Your task to perform on an android device: change the clock display to analog Image 0: 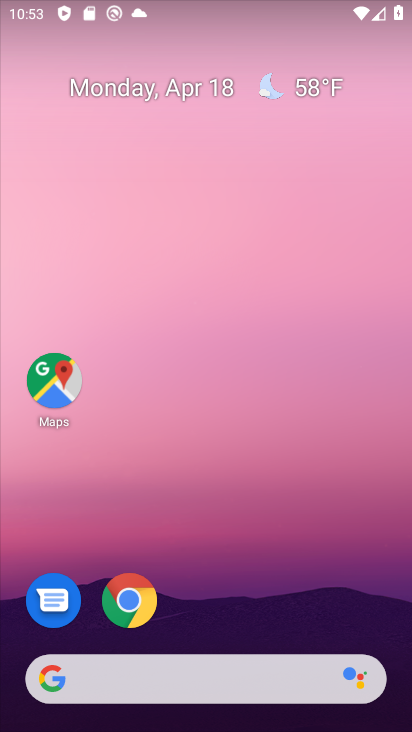
Step 0: drag from (247, 575) to (326, 0)
Your task to perform on an android device: change the clock display to analog Image 1: 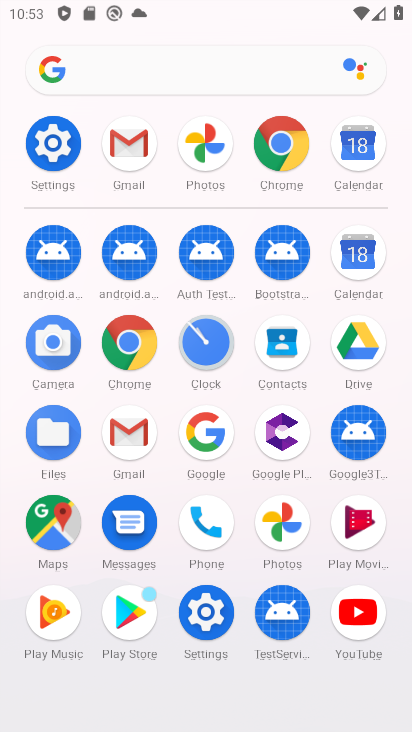
Step 1: click (205, 345)
Your task to perform on an android device: change the clock display to analog Image 2: 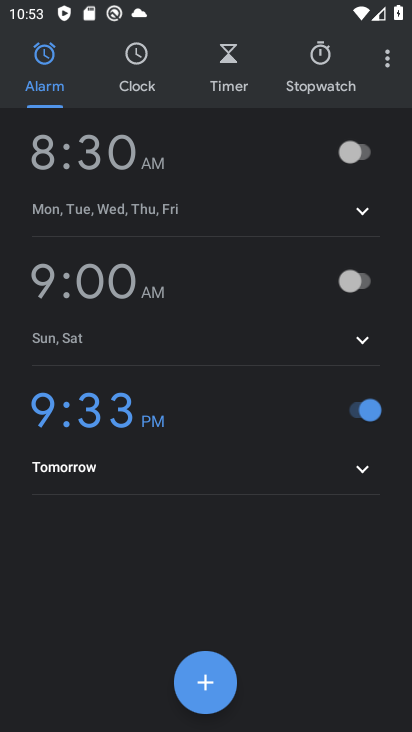
Step 2: click (384, 58)
Your task to perform on an android device: change the clock display to analog Image 3: 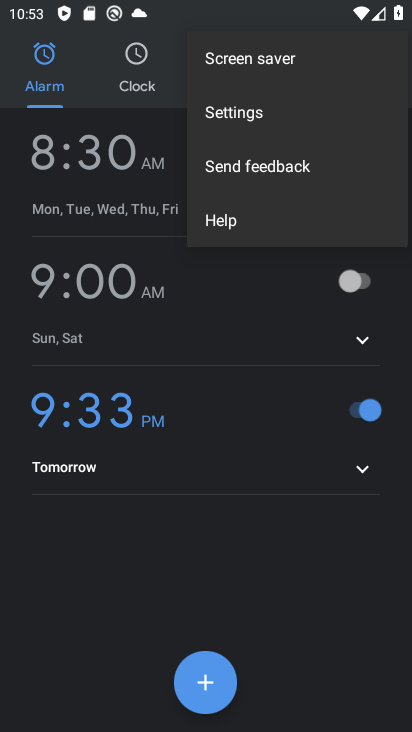
Step 3: click (238, 114)
Your task to perform on an android device: change the clock display to analog Image 4: 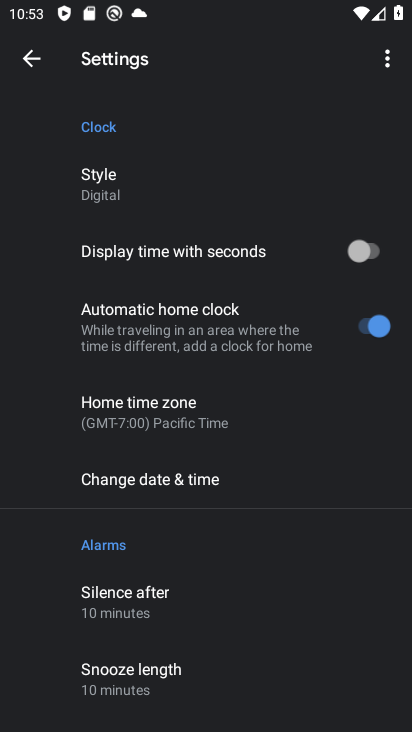
Step 4: click (98, 185)
Your task to perform on an android device: change the clock display to analog Image 5: 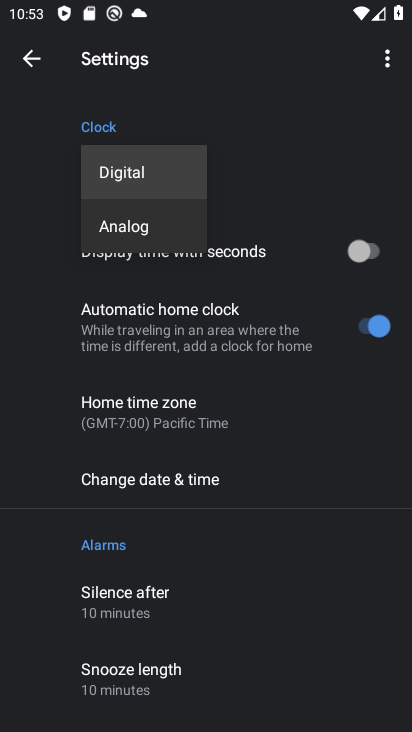
Step 5: click (124, 227)
Your task to perform on an android device: change the clock display to analog Image 6: 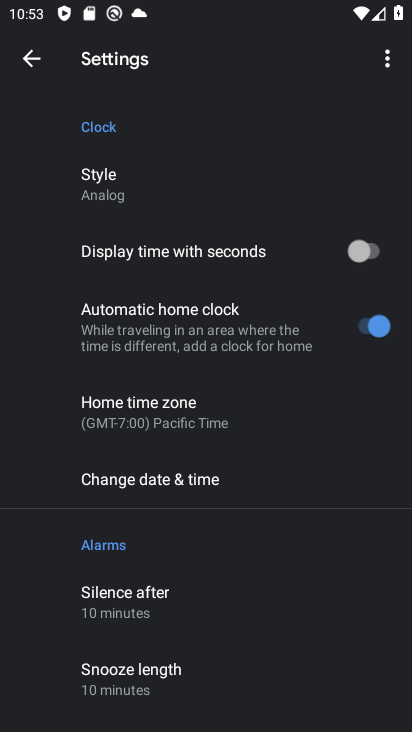
Step 6: task complete